Your task to perform on an android device: Show me productivity apps on the Play Store Image 0: 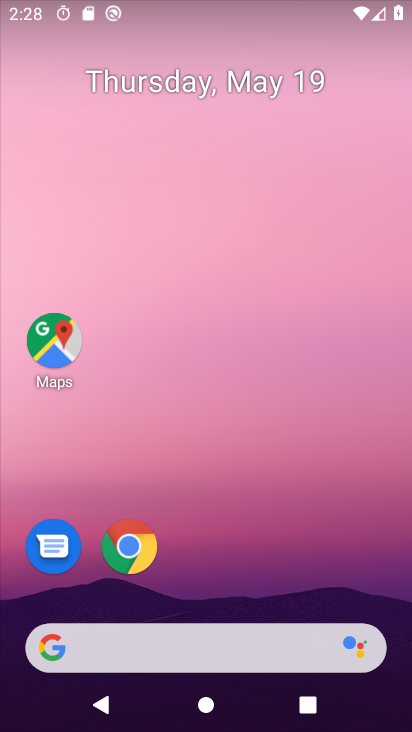
Step 0: press home button
Your task to perform on an android device: Show me productivity apps on the Play Store Image 1: 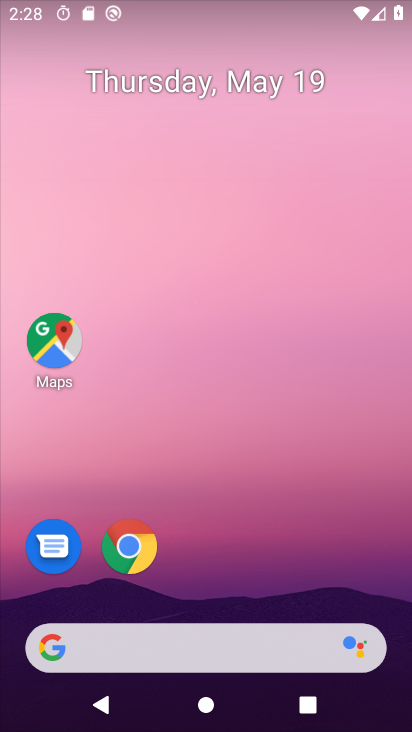
Step 1: drag from (220, 609) to (251, 47)
Your task to perform on an android device: Show me productivity apps on the Play Store Image 2: 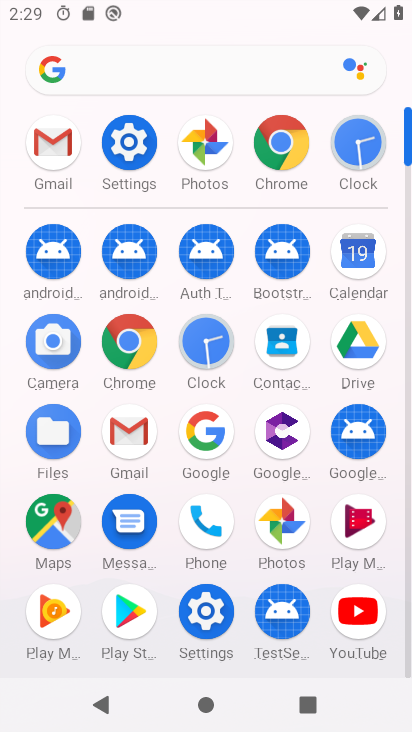
Step 2: click (134, 607)
Your task to perform on an android device: Show me productivity apps on the Play Store Image 3: 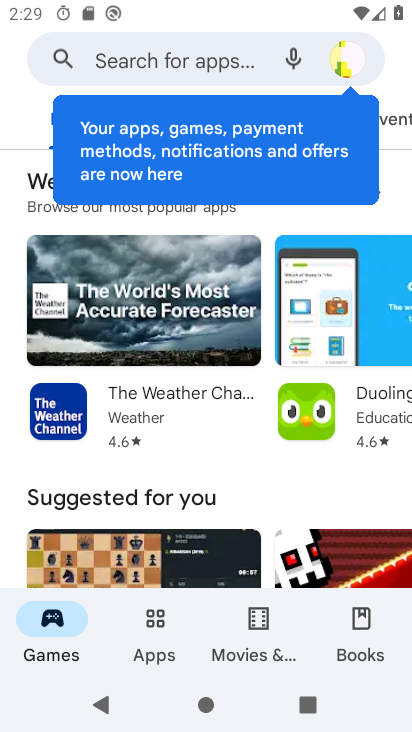
Step 3: click (163, 626)
Your task to perform on an android device: Show me productivity apps on the Play Store Image 4: 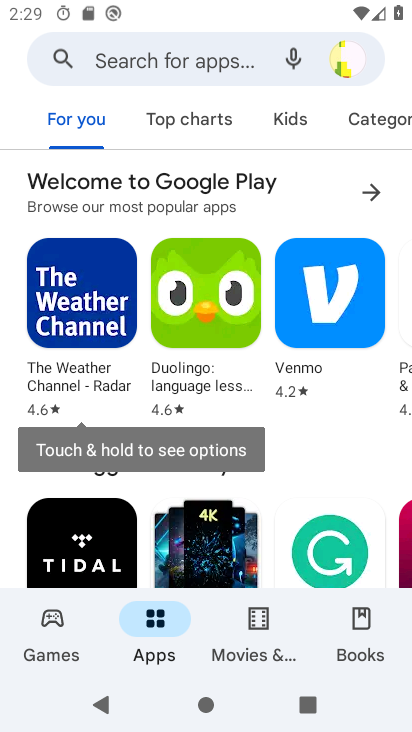
Step 4: click (379, 121)
Your task to perform on an android device: Show me productivity apps on the Play Store Image 5: 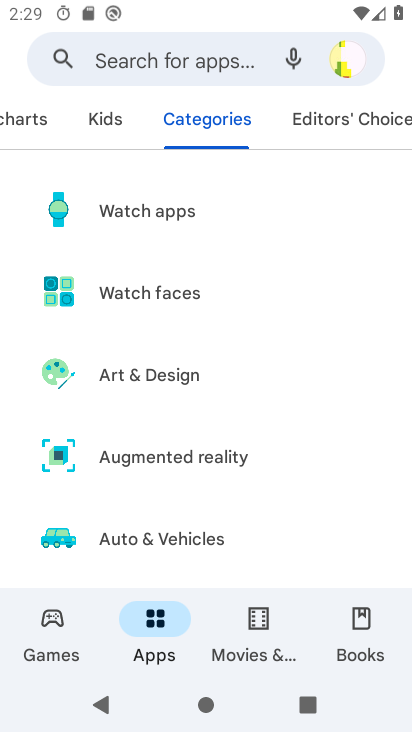
Step 5: drag from (184, 499) to (229, 146)
Your task to perform on an android device: Show me productivity apps on the Play Store Image 6: 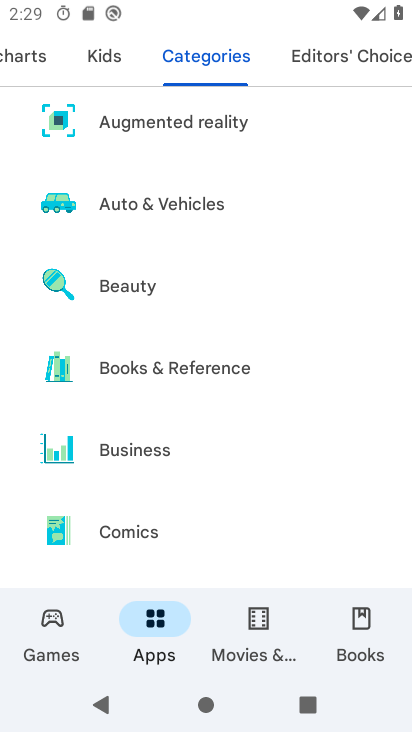
Step 6: drag from (196, 558) to (257, 17)
Your task to perform on an android device: Show me productivity apps on the Play Store Image 7: 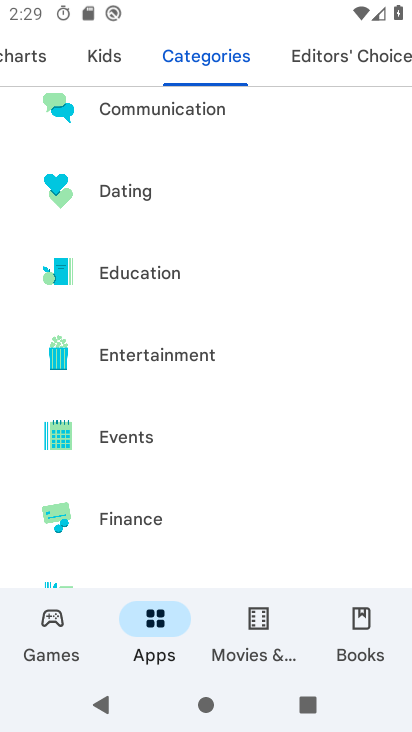
Step 7: drag from (174, 531) to (192, 141)
Your task to perform on an android device: Show me productivity apps on the Play Store Image 8: 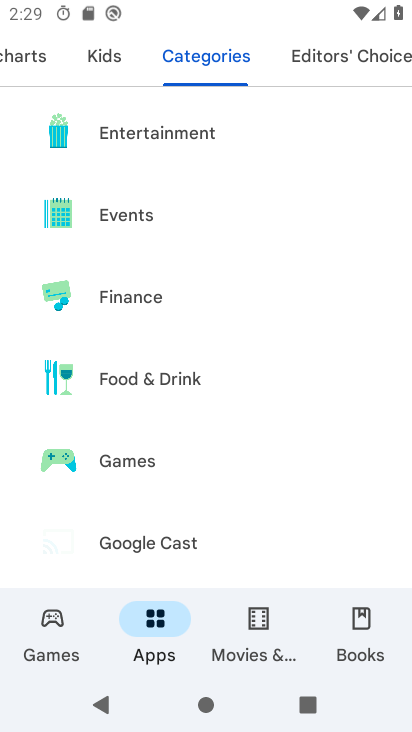
Step 8: click (200, 89)
Your task to perform on an android device: Show me productivity apps on the Play Store Image 9: 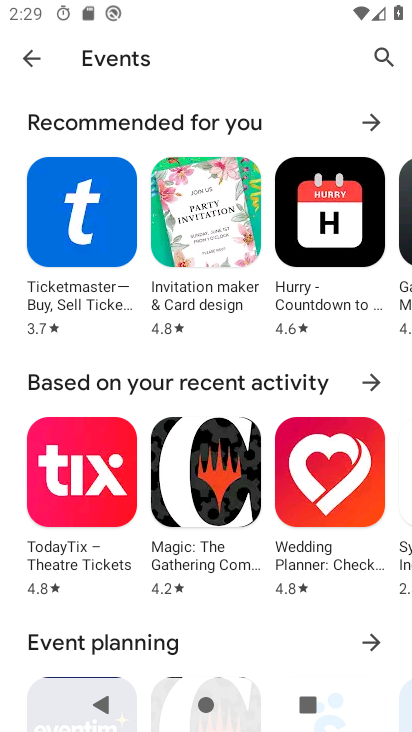
Step 9: click (38, 54)
Your task to perform on an android device: Show me productivity apps on the Play Store Image 10: 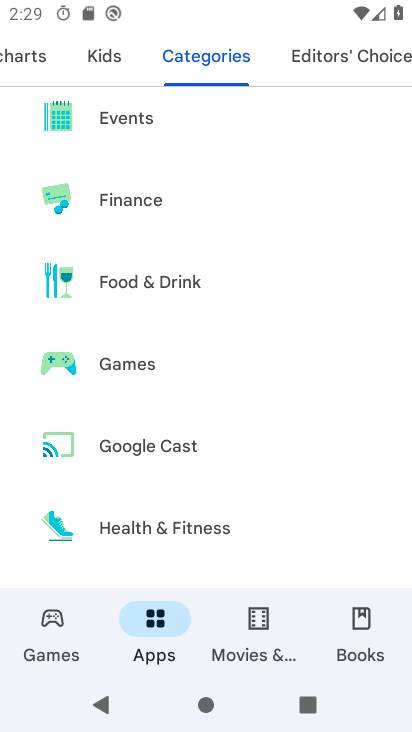
Step 10: drag from (182, 552) to (247, 69)
Your task to perform on an android device: Show me productivity apps on the Play Store Image 11: 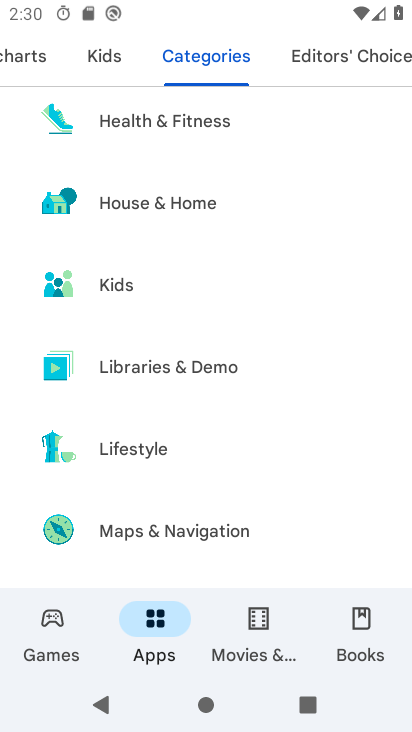
Step 11: drag from (191, 542) to (227, 78)
Your task to perform on an android device: Show me productivity apps on the Play Store Image 12: 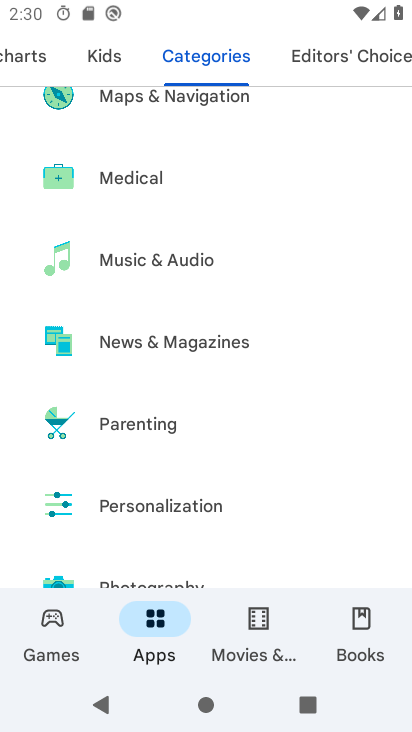
Step 12: drag from (172, 545) to (197, 93)
Your task to perform on an android device: Show me productivity apps on the Play Store Image 13: 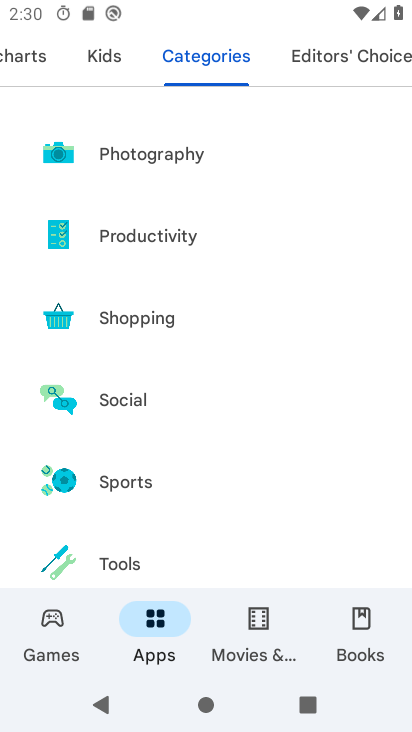
Step 13: click (78, 230)
Your task to perform on an android device: Show me productivity apps on the Play Store Image 14: 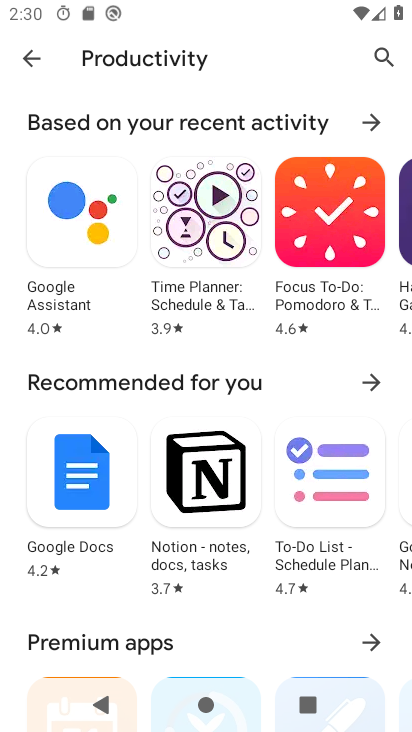
Step 14: task complete